Your task to perform on an android device: turn off notifications settings in the gmail app Image 0: 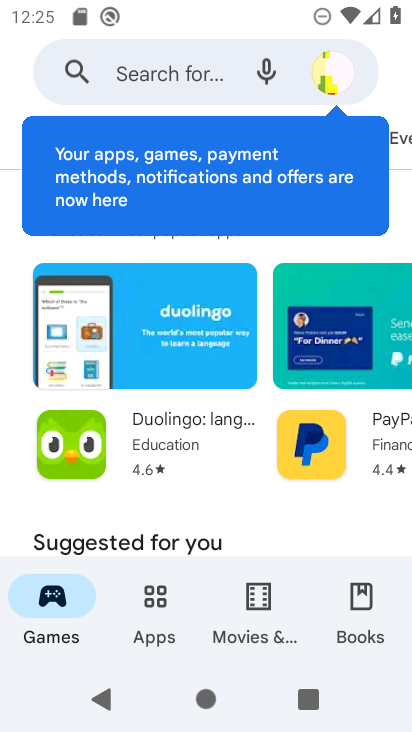
Step 0: press home button
Your task to perform on an android device: turn off notifications settings in the gmail app Image 1: 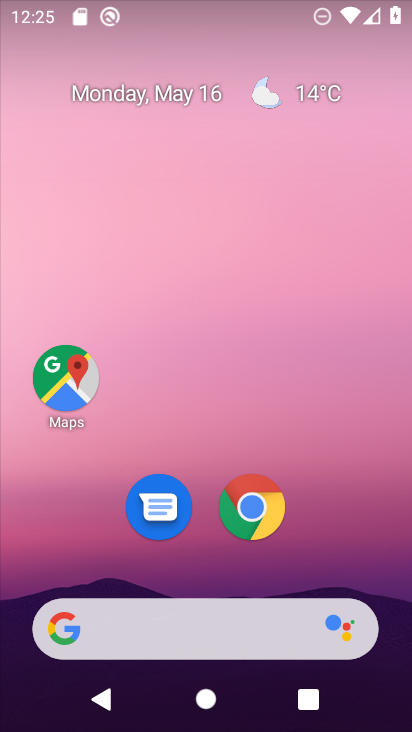
Step 1: drag from (312, 541) to (410, 181)
Your task to perform on an android device: turn off notifications settings in the gmail app Image 2: 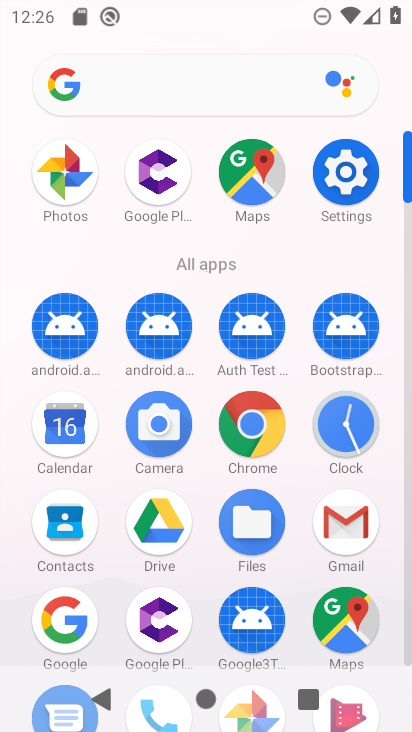
Step 2: click (353, 531)
Your task to perform on an android device: turn off notifications settings in the gmail app Image 3: 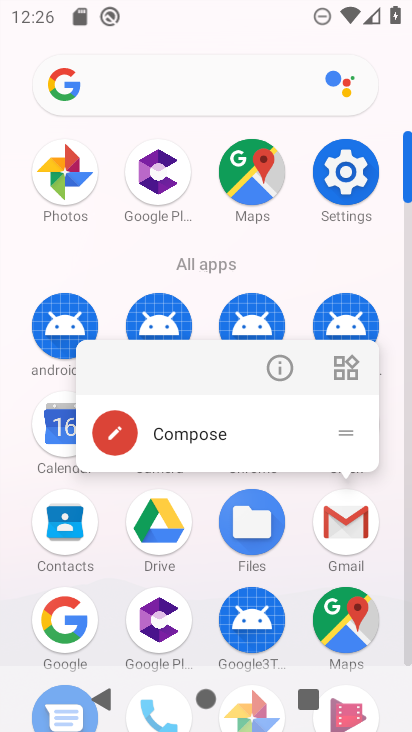
Step 3: click (352, 526)
Your task to perform on an android device: turn off notifications settings in the gmail app Image 4: 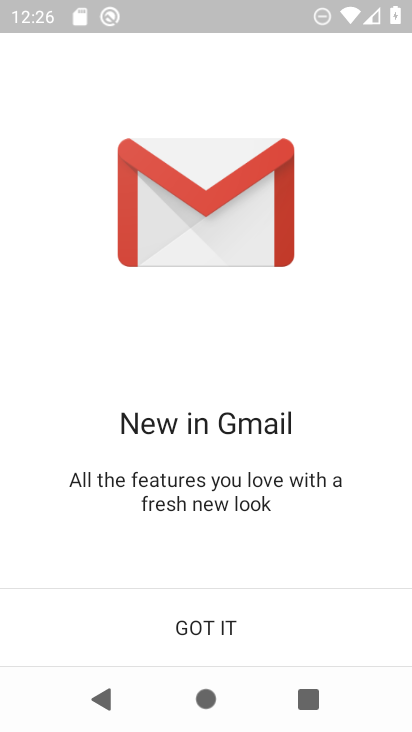
Step 4: click (190, 624)
Your task to perform on an android device: turn off notifications settings in the gmail app Image 5: 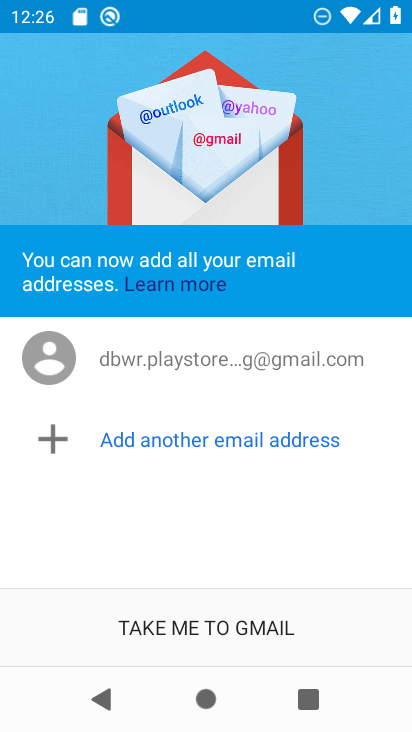
Step 5: click (192, 630)
Your task to perform on an android device: turn off notifications settings in the gmail app Image 6: 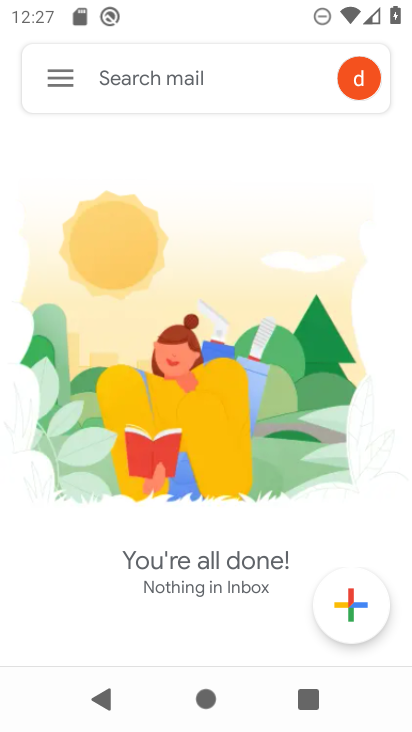
Step 6: click (68, 80)
Your task to perform on an android device: turn off notifications settings in the gmail app Image 7: 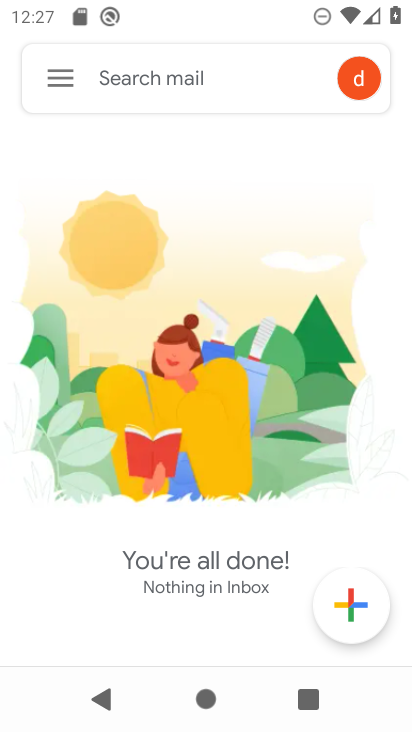
Step 7: click (74, 91)
Your task to perform on an android device: turn off notifications settings in the gmail app Image 8: 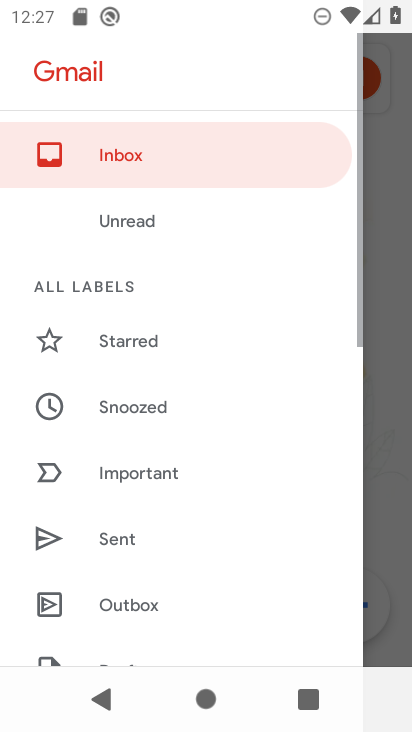
Step 8: drag from (189, 564) to (222, 160)
Your task to perform on an android device: turn off notifications settings in the gmail app Image 9: 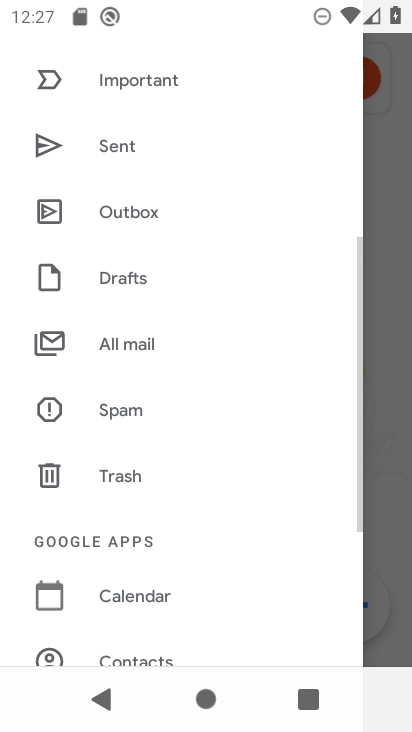
Step 9: drag from (213, 601) to (229, 173)
Your task to perform on an android device: turn off notifications settings in the gmail app Image 10: 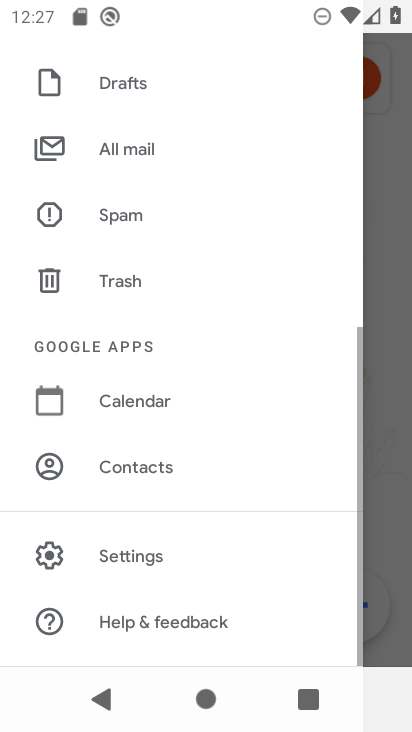
Step 10: click (143, 557)
Your task to perform on an android device: turn off notifications settings in the gmail app Image 11: 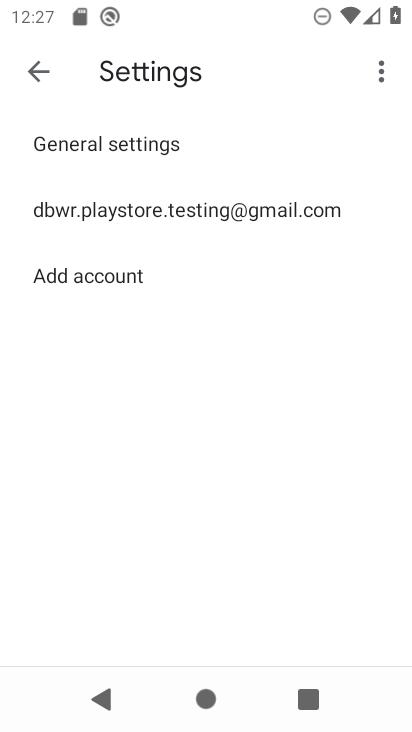
Step 11: click (140, 220)
Your task to perform on an android device: turn off notifications settings in the gmail app Image 12: 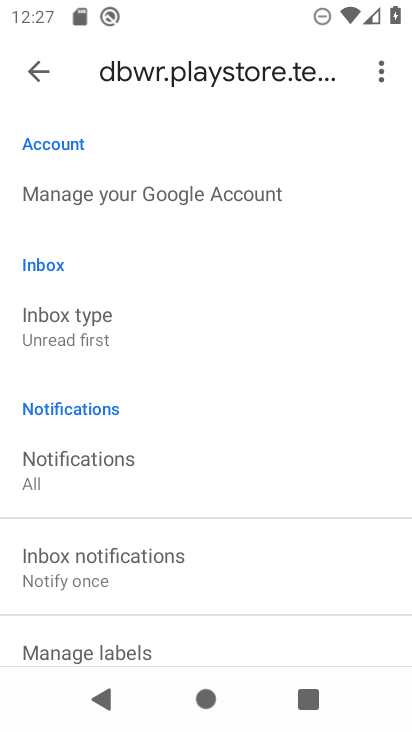
Step 12: drag from (243, 591) to (241, 464)
Your task to perform on an android device: turn off notifications settings in the gmail app Image 13: 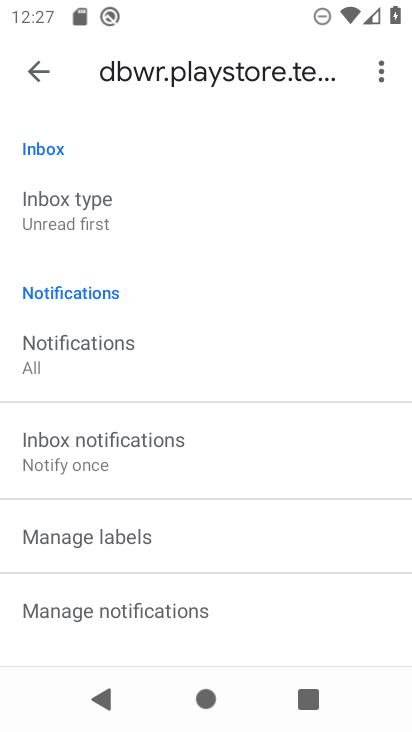
Step 13: click (204, 370)
Your task to perform on an android device: turn off notifications settings in the gmail app Image 14: 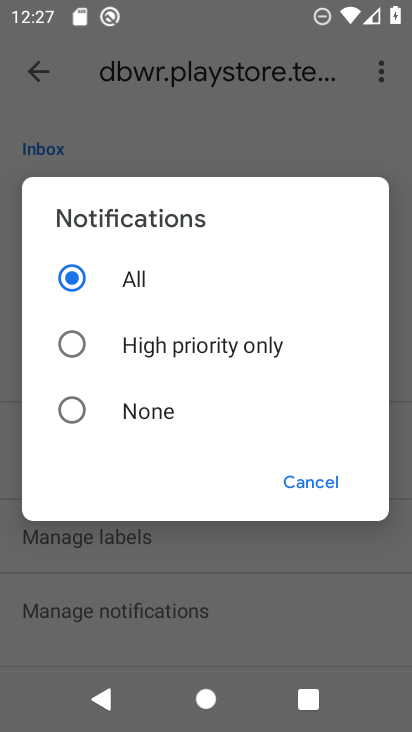
Step 14: click (213, 414)
Your task to perform on an android device: turn off notifications settings in the gmail app Image 15: 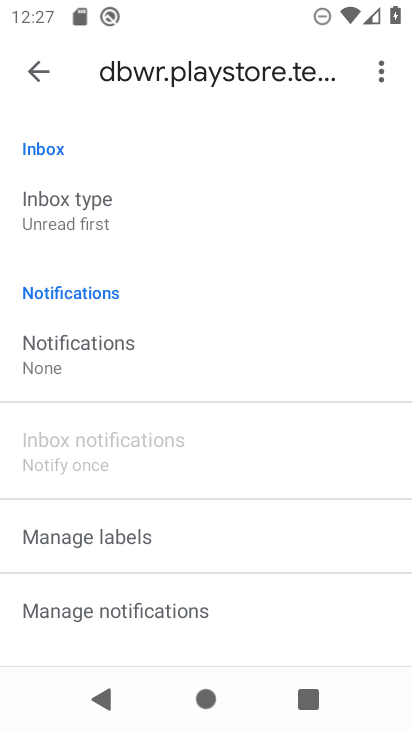
Step 15: task complete